Your task to perform on an android device: Search for usb-c to usb-a on newegg.com, select the first entry, add it to the cart, then select checkout. Image 0: 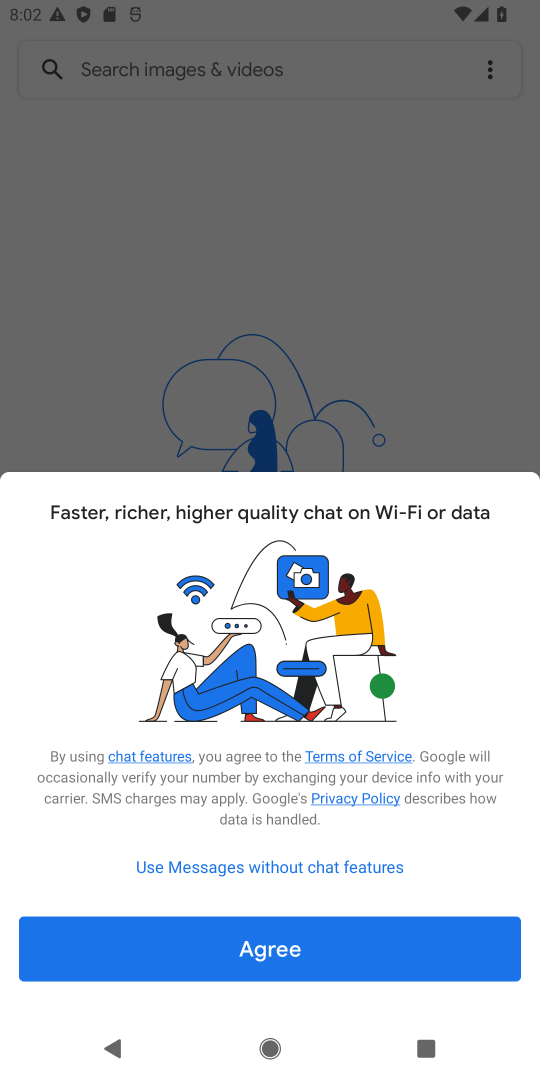
Step 0: press home button
Your task to perform on an android device: Search for usb-c to usb-a on newegg.com, select the first entry, add it to the cart, then select checkout. Image 1: 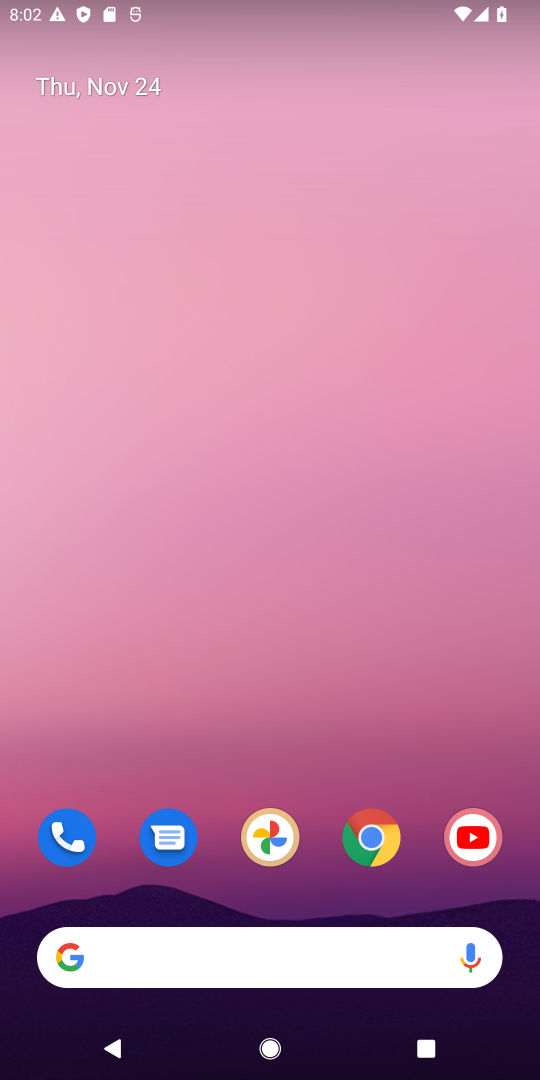
Step 1: click (388, 841)
Your task to perform on an android device: Search for usb-c to usb-a on newegg.com, select the first entry, add it to the cart, then select checkout. Image 2: 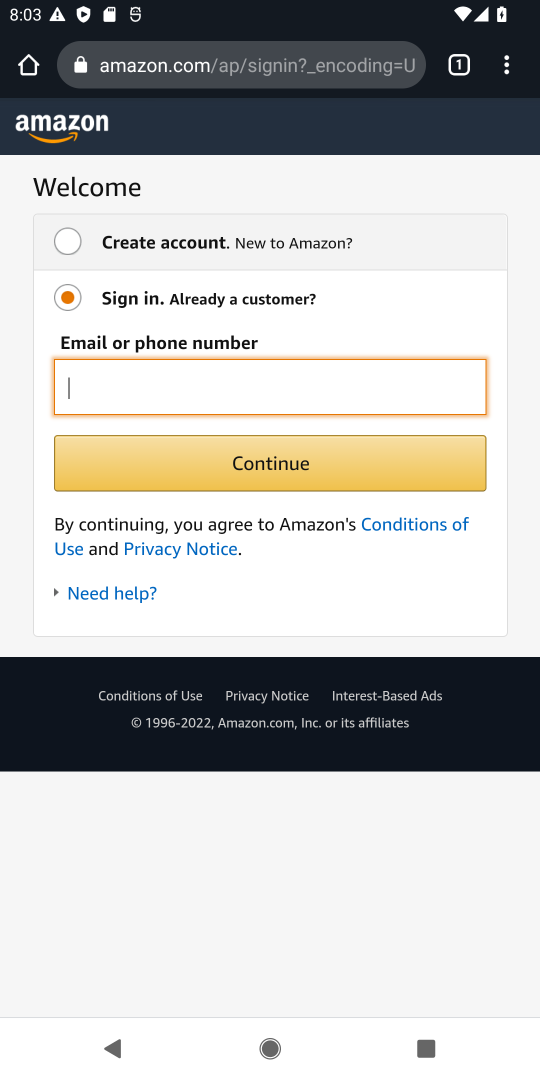
Step 2: click (245, 62)
Your task to perform on an android device: Search for usb-c to usb-a on newegg.com, select the first entry, add it to the cart, then select checkout. Image 3: 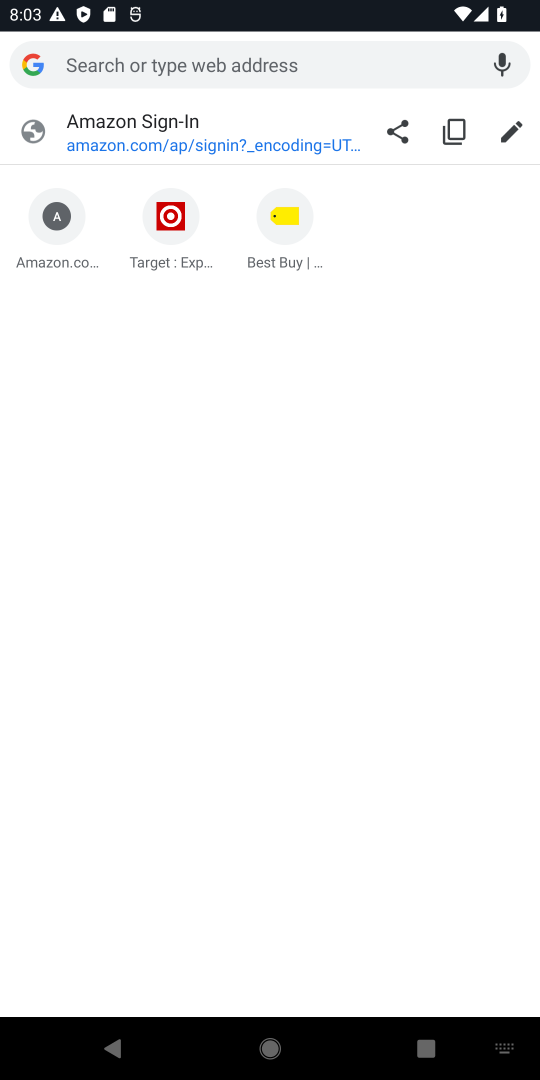
Step 3: type "usb-c to usb-a"
Your task to perform on an android device: Search for usb-c to usb-a on newegg.com, select the first entry, add it to the cart, then select checkout. Image 4: 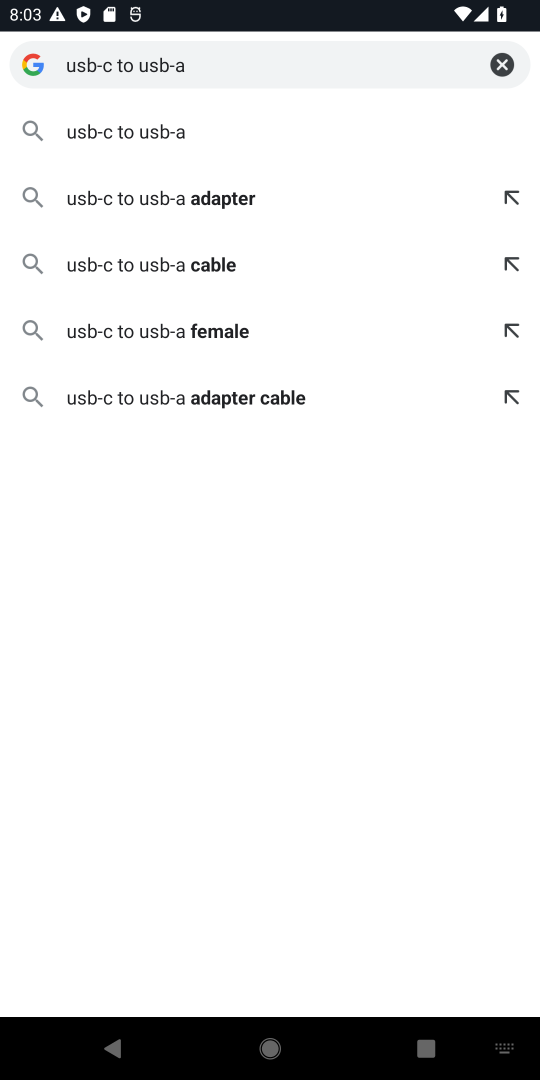
Step 4: click (144, 136)
Your task to perform on an android device: Search for usb-c to usb-a on newegg.com, select the first entry, add it to the cart, then select checkout. Image 5: 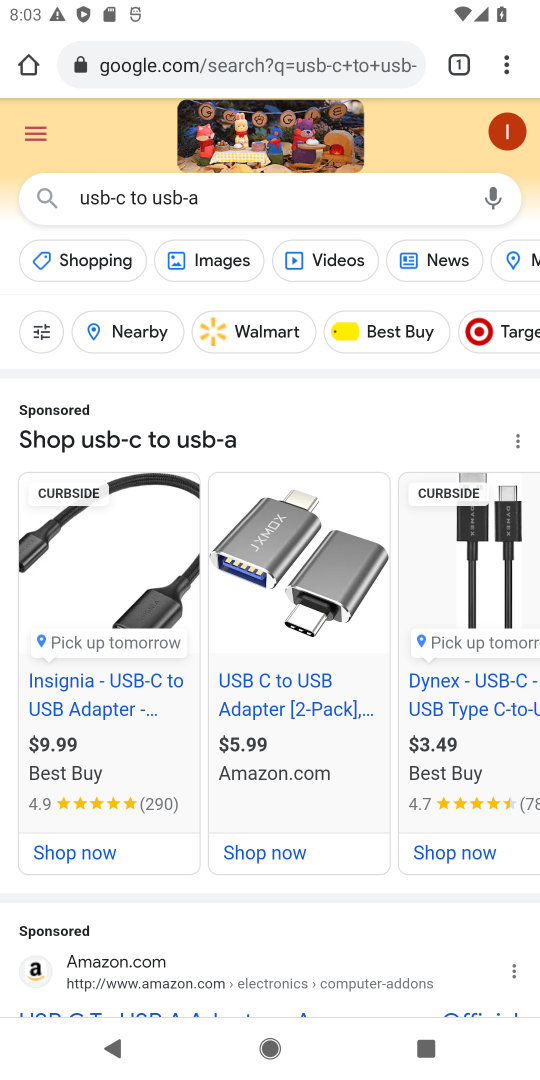
Step 5: click (267, 57)
Your task to perform on an android device: Search for usb-c to usb-a on newegg.com, select the first entry, add it to the cart, then select checkout. Image 6: 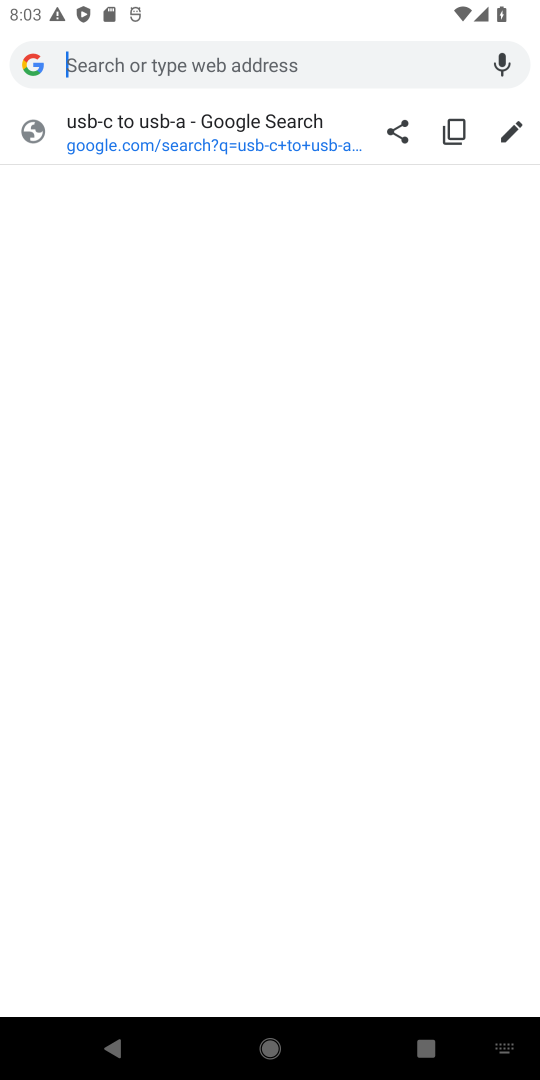
Step 6: type "newegg.com"
Your task to perform on an android device: Search for usb-c to usb-a on newegg.com, select the first entry, add it to the cart, then select checkout. Image 7: 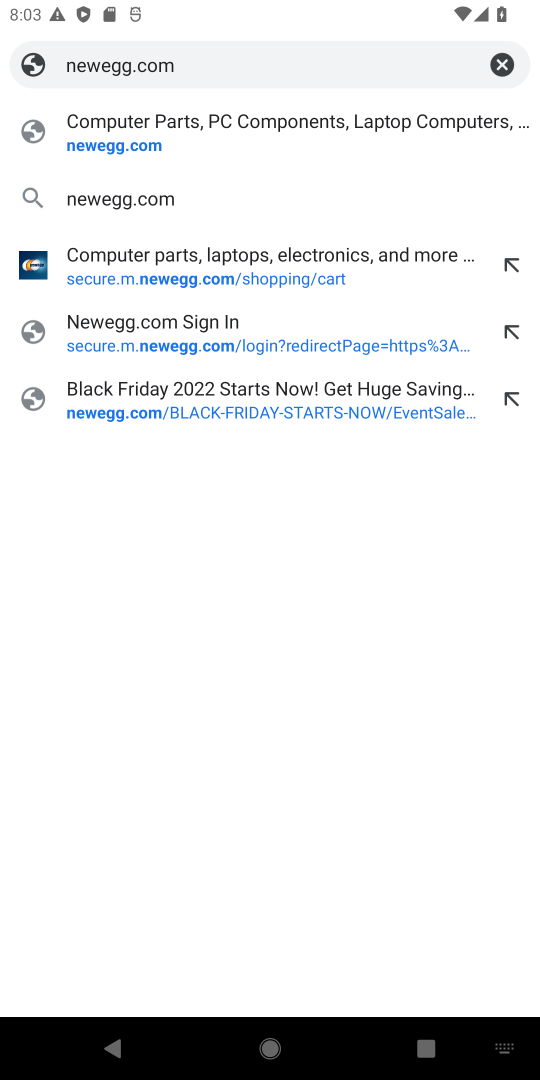
Step 7: click (258, 136)
Your task to perform on an android device: Search for usb-c to usb-a on newegg.com, select the first entry, add it to the cart, then select checkout. Image 8: 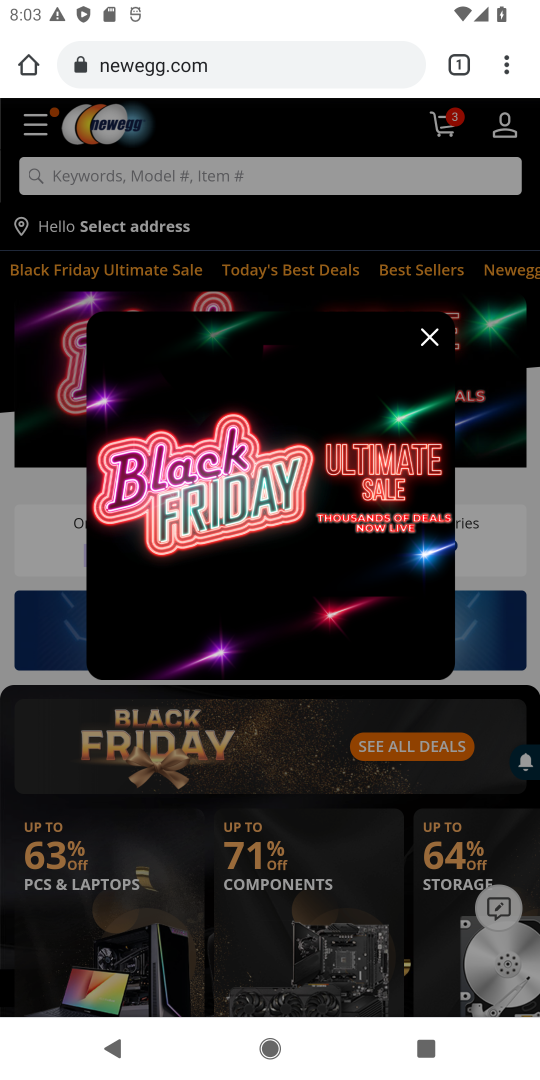
Step 8: click (263, 181)
Your task to perform on an android device: Search for usb-c to usb-a on newegg.com, select the first entry, add it to the cart, then select checkout. Image 9: 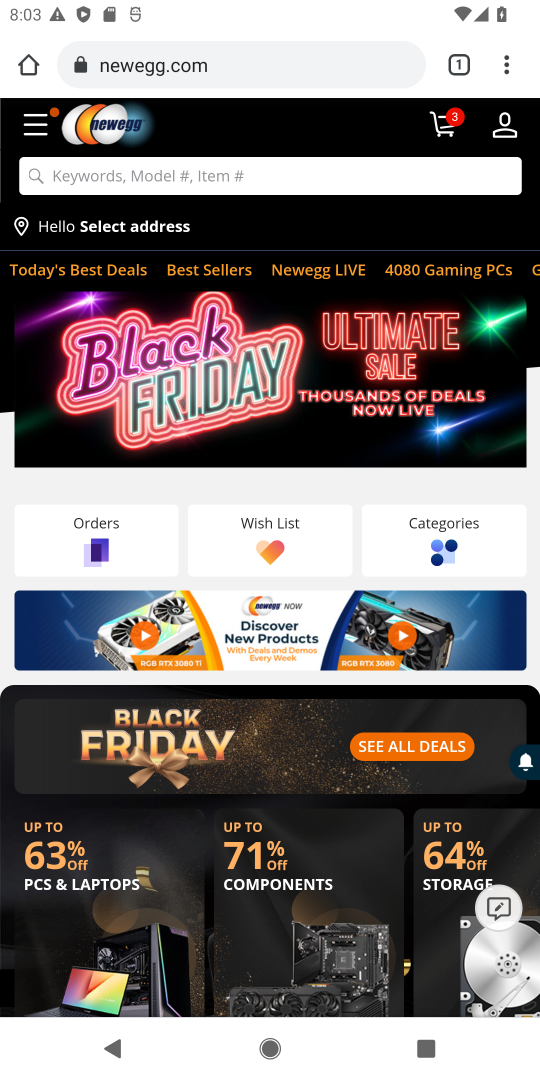
Step 9: click (418, 336)
Your task to perform on an android device: Search for usb-c to usb-a on newegg.com, select the first entry, add it to the cart, then select checkout. Image 10: 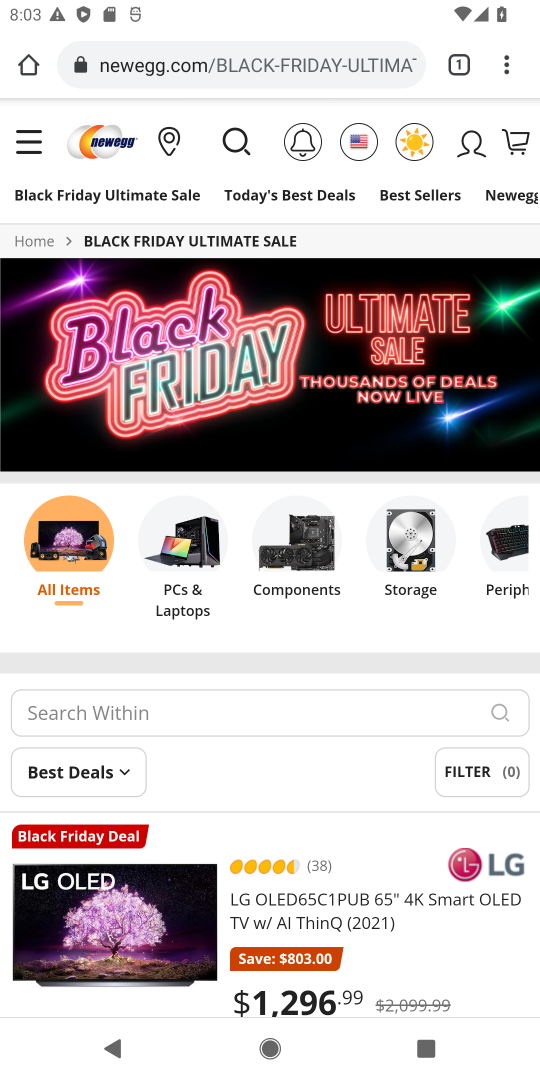
Step 10: click (350, 143)
Your task to perform on an android device: Search for usb-c to usb-a on newegg.com, select the first entry, add it to the cart, then select checkout. Image 11: 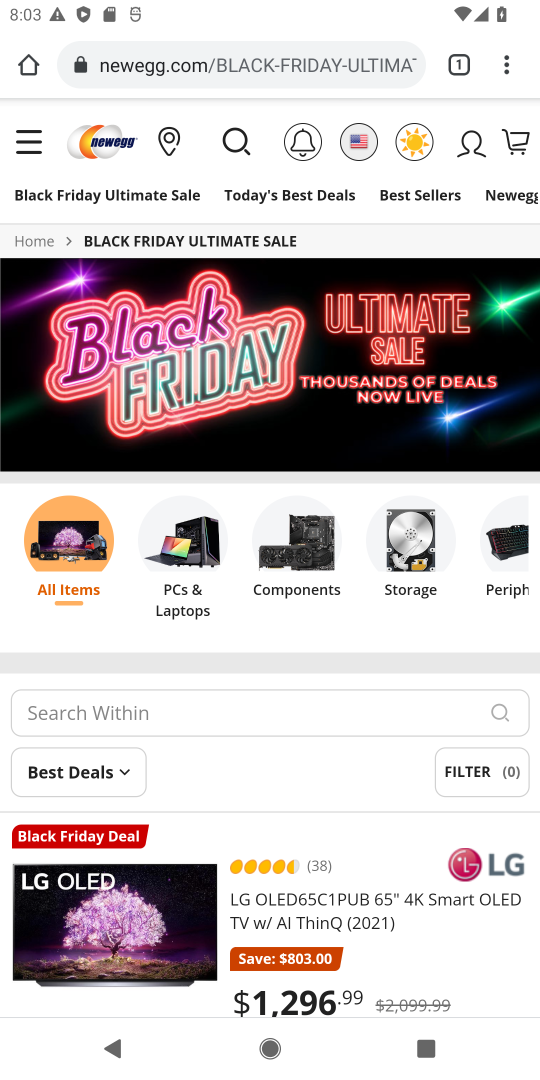
Step 11: click (228, 142)
Your task to perform on an android device: Search for usb-c to usb-a on newegg.com, select the first entry, add it to the cart, then select checkout. Image 12: 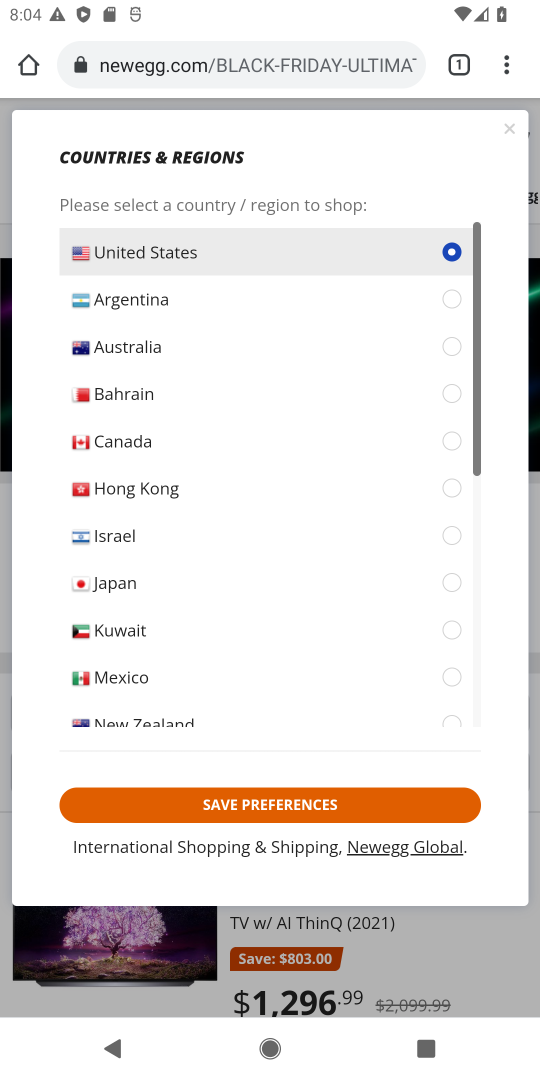
Step 12: click (511, 131)
Your task to perform on an android device: Search for usb-c to usb-a on newegg.com, select the first entry, add it to the cart, then select checkout. Image 13: 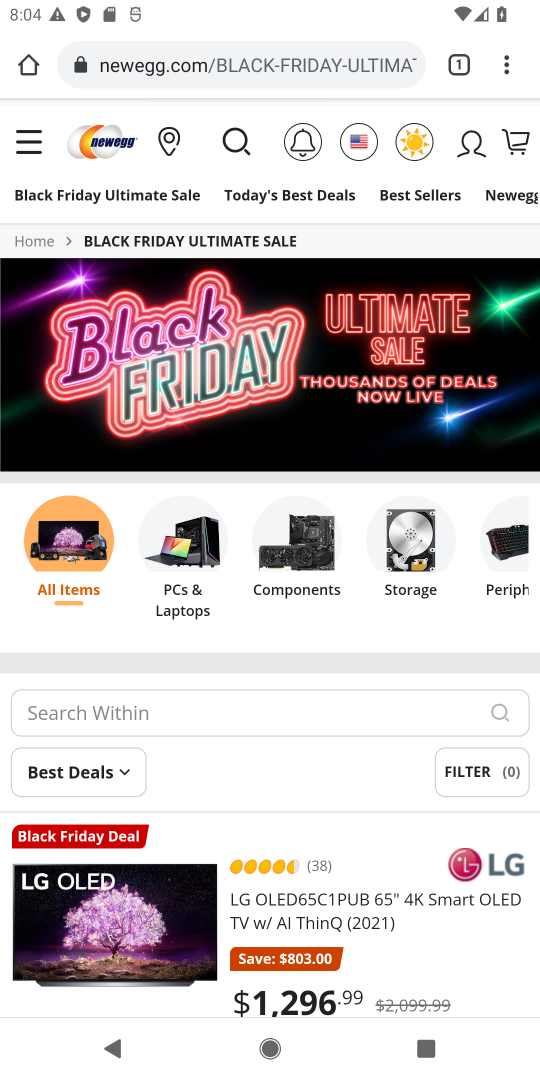
Step 13: click (230, 139)
Your task to perform on an android device: Search for usb-c to usb-a on newegg.com, select the first entry, add it to the cart, then select checkout. Image 14: 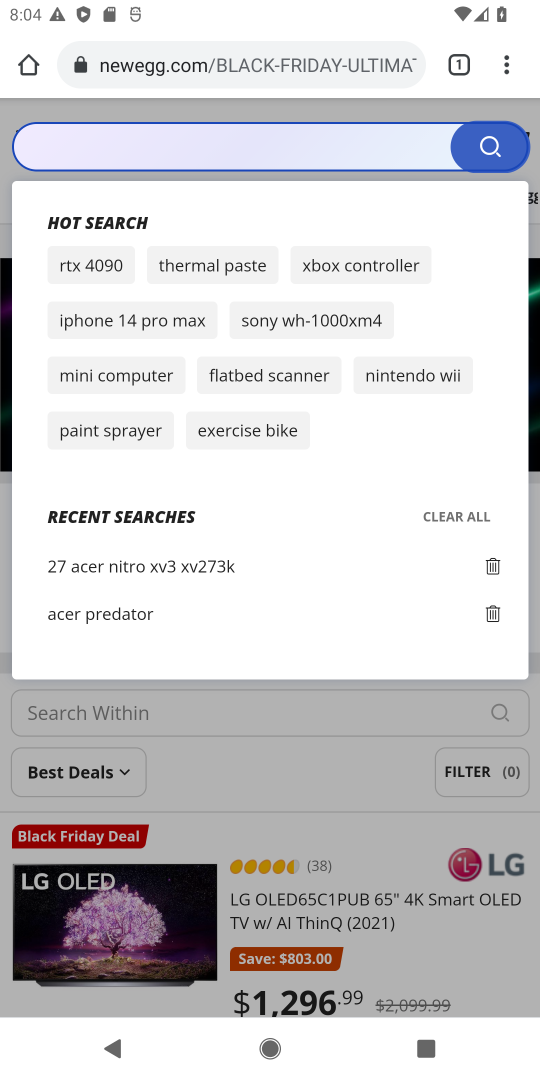
Step 14: click (224, 142)
Your task to perform on an android device: Search for usb-c to usb-a on newegg.com, select the first entry, add it to the cart, then select checkout. Image 15: 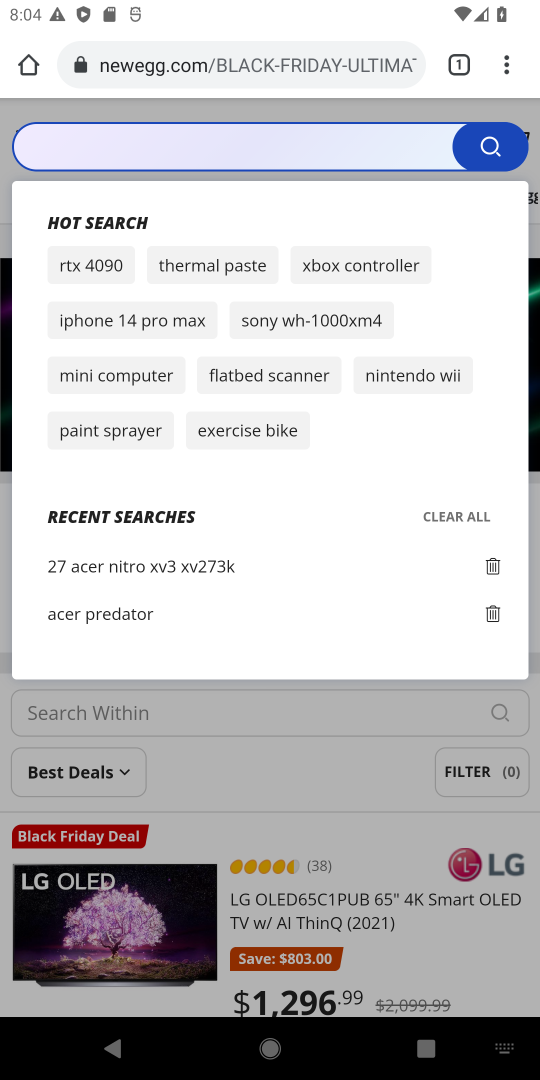
Step 15: type "usb-c to usb-a"
Your task to perform on an android device: Search for usb-c to usb-a on newegg.com, select the first entry, add it to the cart, then select checkout. Image 16: 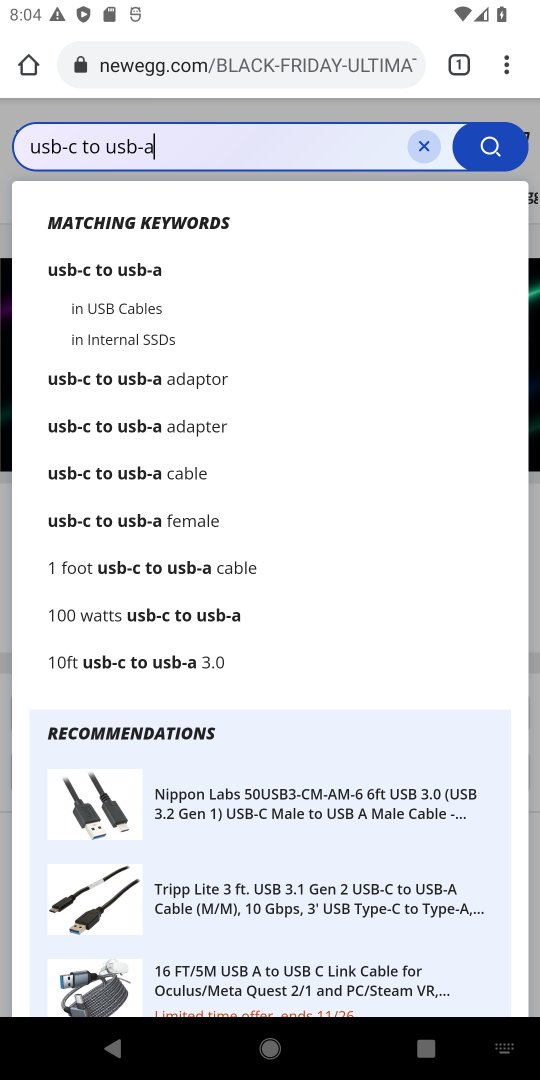
Step 16: click (493, 147)
Your task to perform on an android device: Search for usb-c to usb-a on newegg.com, select the first entry, add it to the cart, then select checkout. Image 17: 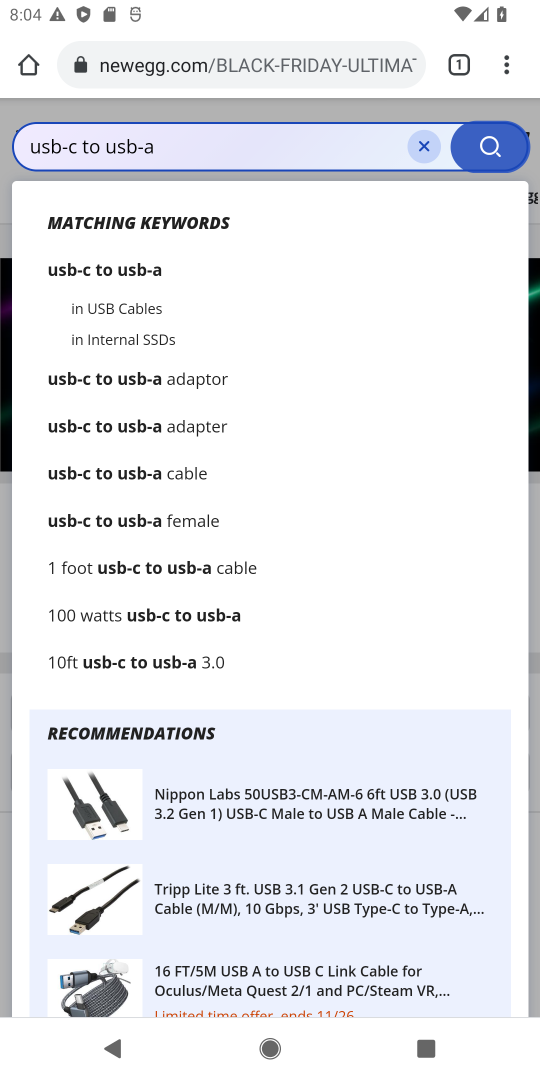
Step 17: click (139, 267)
Your task to perform on an android device: Search for usb-c to usb-a on newegg.com, select the first entry, add it to the cart, then select checkout. Image 18: 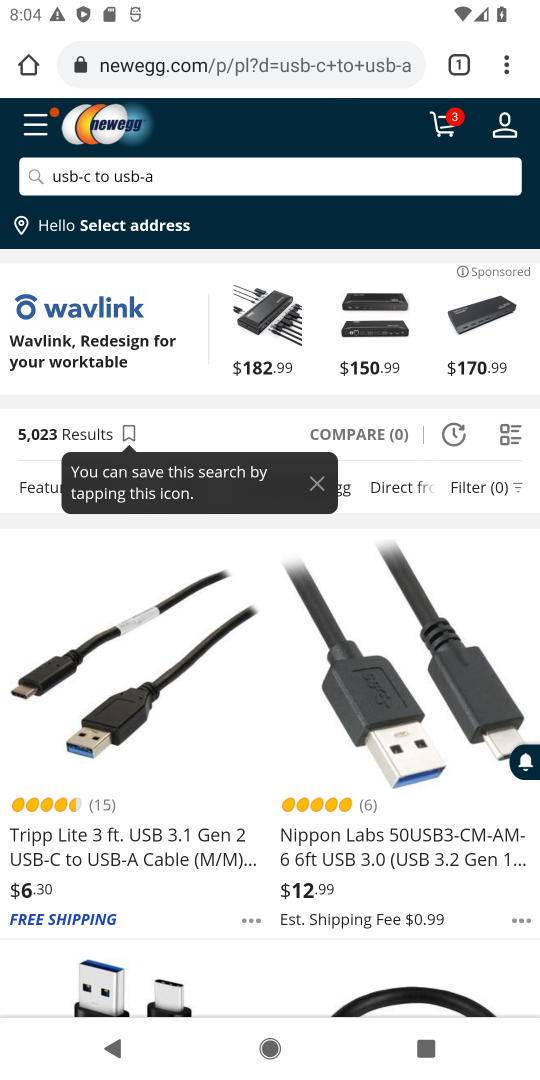
Step 18: click (126, 724)
Your task to perform on an android device: Search for usb-c to usb-a on newegg.com, select the first entry, add it to the cart, then select checkout. Image 19: 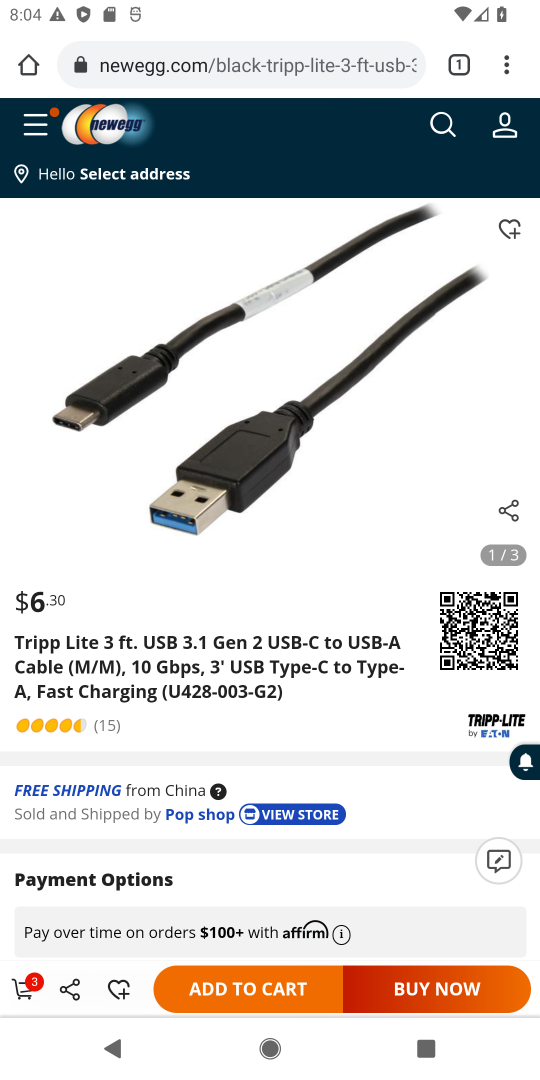
Step 19: click (259, 983)
Your task to perform on an android device: Search for usb-c to usb-a on newegg.com, select the first entry, add it to the cart, then select checkout. Image 20: 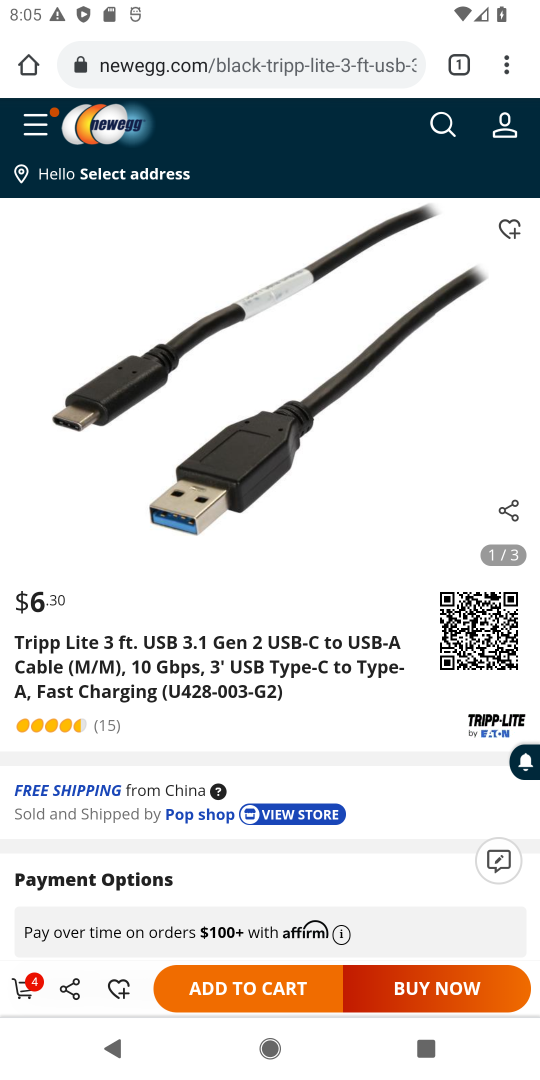
Step 20: click (25, 996)
Your task to perform on an android device: Search for usb-c to usb-a on newegg.com, select the first entry, add it to the cart, then select checkout. Image 21: 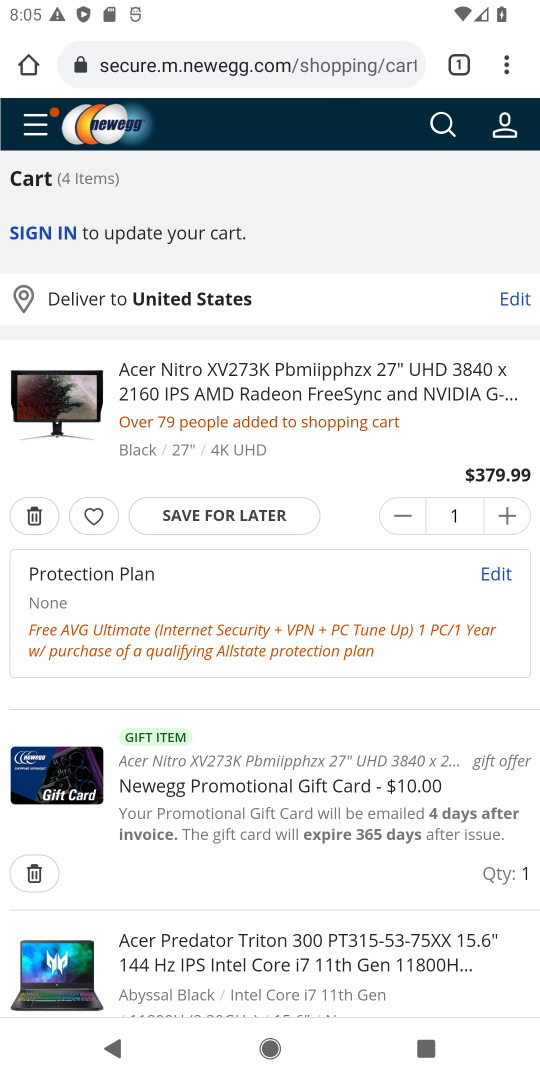
Step 21: click (297, 934)
Your task to perform on an android device: Search for usb-c to usb-a on newegg.com, select the first entry, add it to the cart, then select checkout. Image 22: 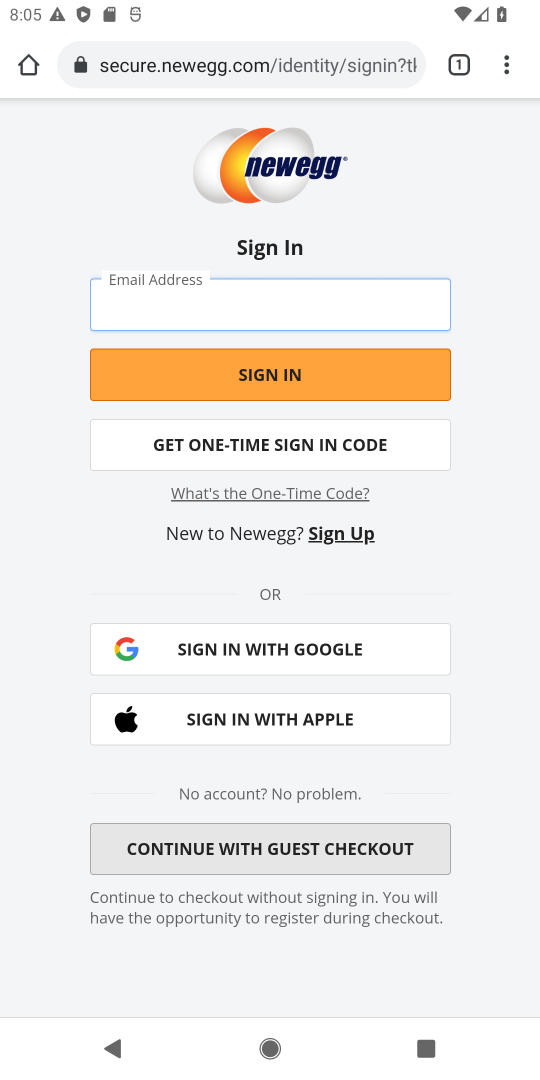
Step 22: task complete